Your task to perform on an android device: see tabs open on other devices in the chrome app Image 0: 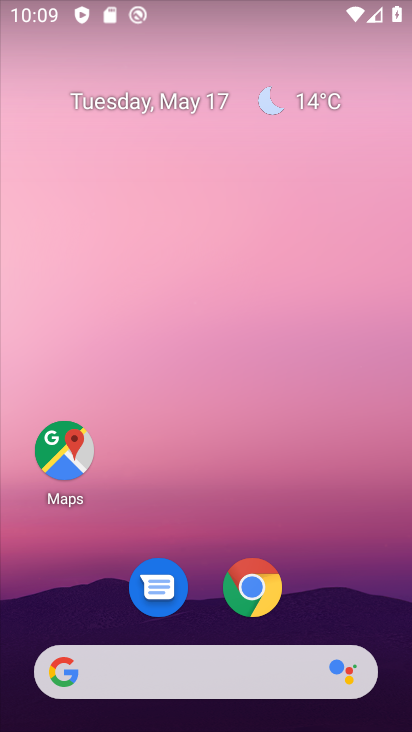
Step 0: drag from (197, 374) to (138, 189)
Your task to perform on an android device: see tabs open on other devices in the chrome app Image 1: 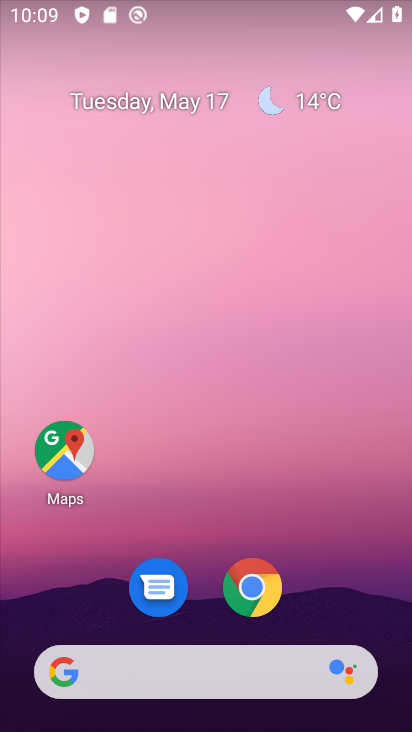
Step 1: drag from (356, 667) to (210, 133)
Your task to perform on an android device: see tabs open on other devices in the chrome app Image 2: 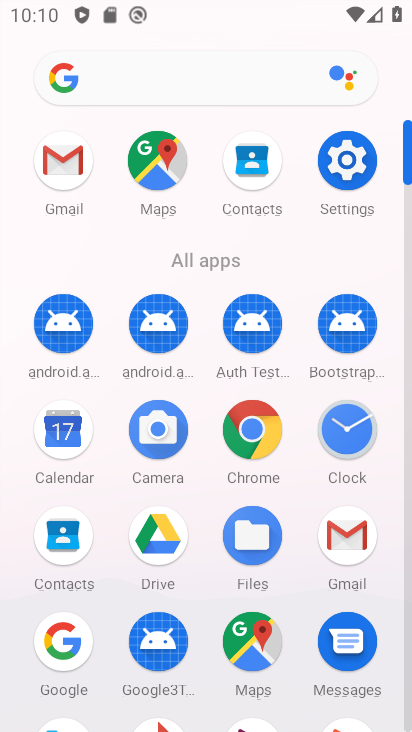
Step 2: click (236, 423)
Your task to perform on an android device: see tabs open on other devices in the chrome app Image 3: 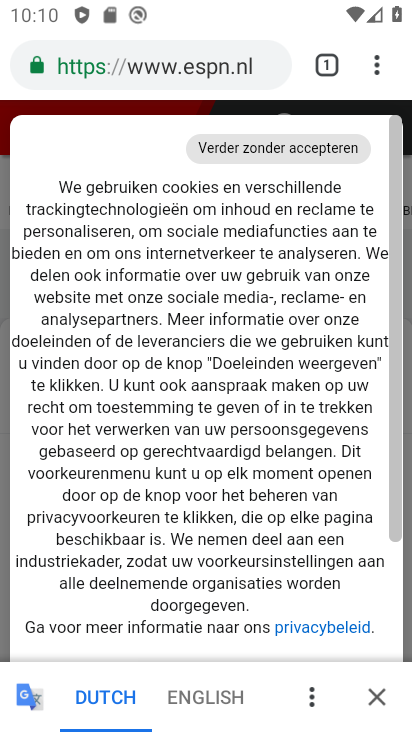
Step 3: click (342, 168)
Your task to perform on an android device: see tabs open on other devices in the chrome app Image 4: 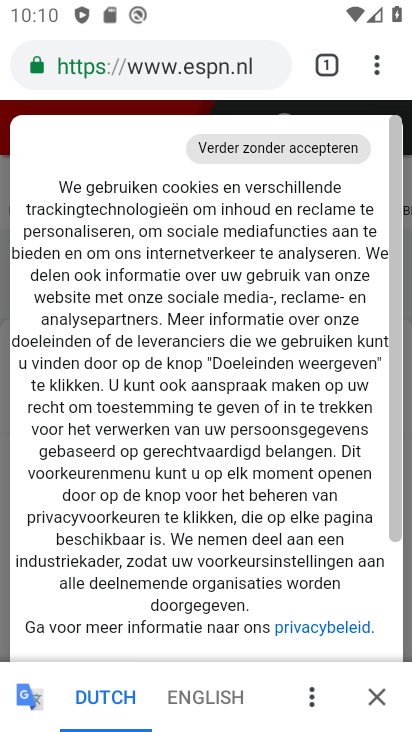
Step 4: drag from (365, 63) to (335, 339)
Your task to perform on an android device: see tabs open on other devices in the chrome app Image 5: 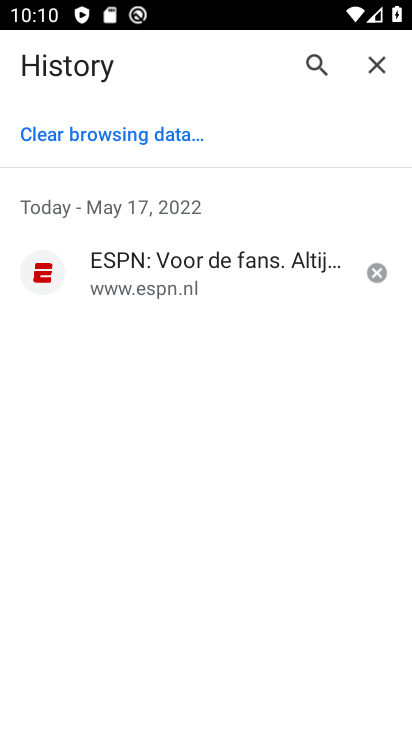
Step 5: click (365, 70)
Your task to perform on an android device: see tabs open on other devices in the chrome app Image 6: 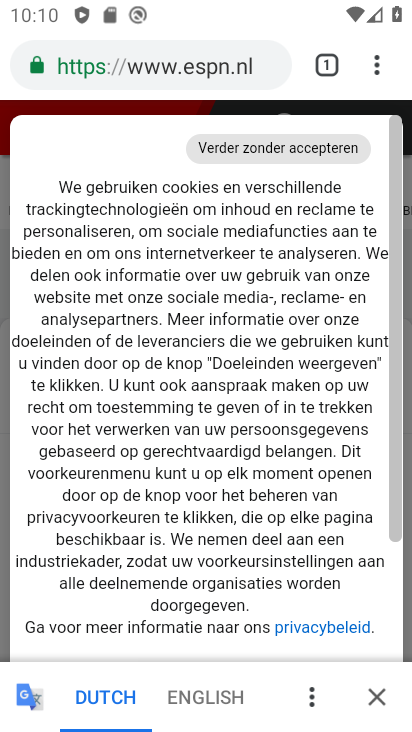
Step 6: drag from (373, 62) to (137, 318)
Your task to perform on an android device: see tabs open on other devices in the chrome app Image 7: 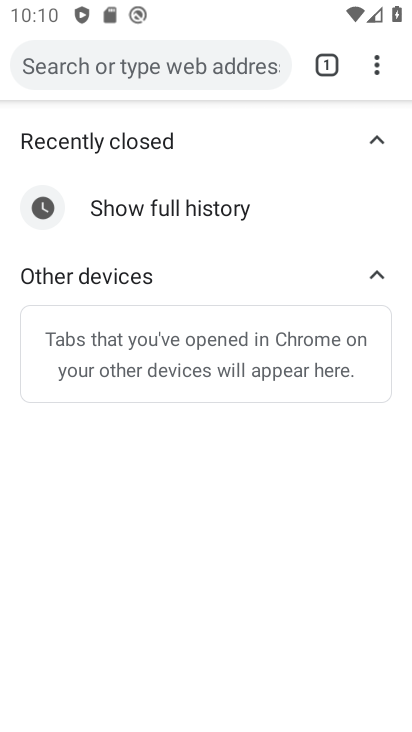
Step 7: drag from (368, 54) to (154, 305)
Your task to perform on an android device: see tabs open on other devices in the chrome app Image 8: 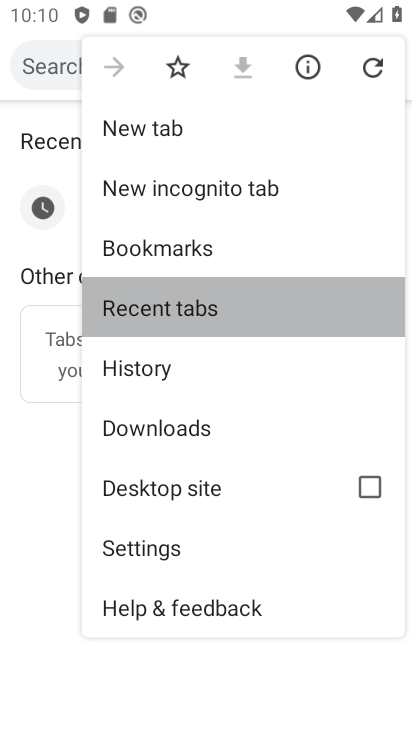
Step 8: click (154, 305)
Your task to perform on an android device: see tabs open on other devices in the chrome app Image 9: 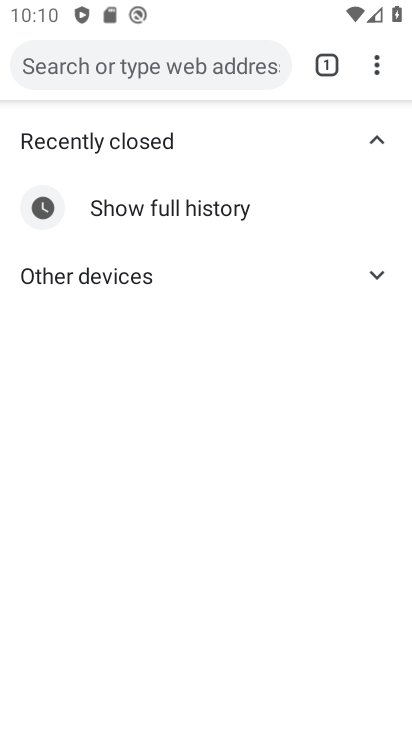
Step 9: task complete